Your task to perform on an android device: Open Google Chrome Image 0: 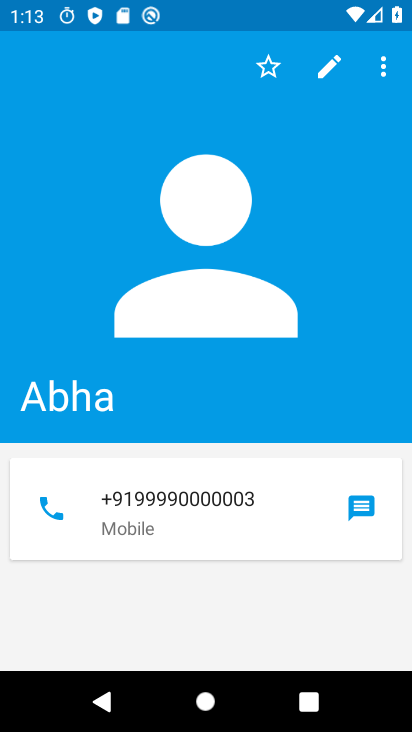
Step 0: press home button
Your task to perform on an android device: Open Google Chrome Image 1: 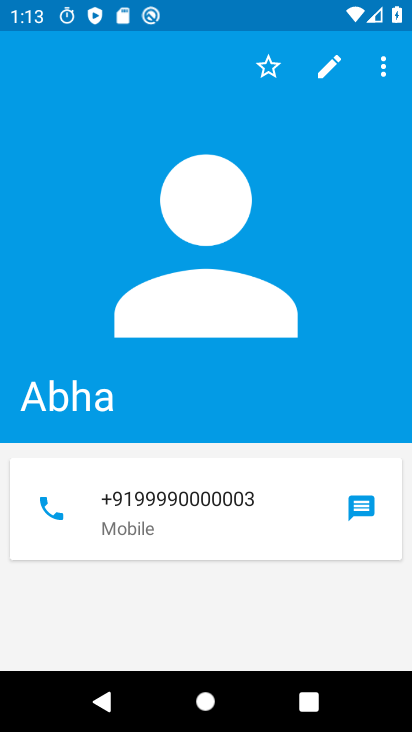
Step 1: press home button
Your task to perform on an android device: Open Google Chrome Image 2: 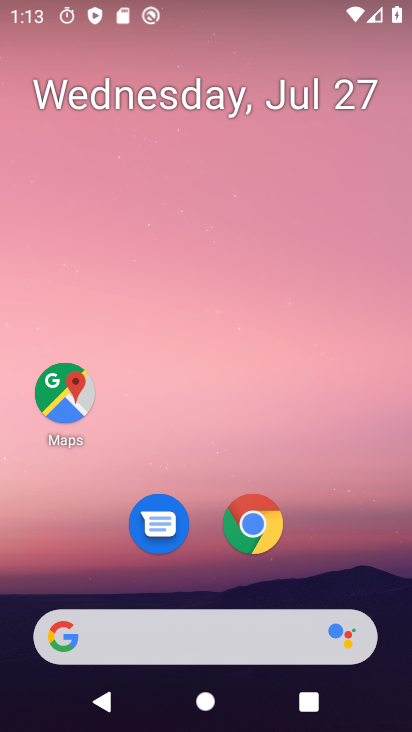
Step 2: click (258, 515)
Your task to perform on an android device: Open Google Chrome Image 3: 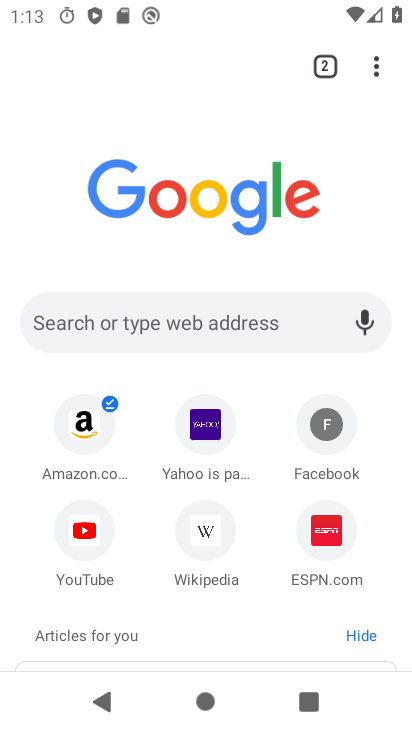
Step 3: task complete